Your task to perform on an android device: When is my next appointment? Image 0: 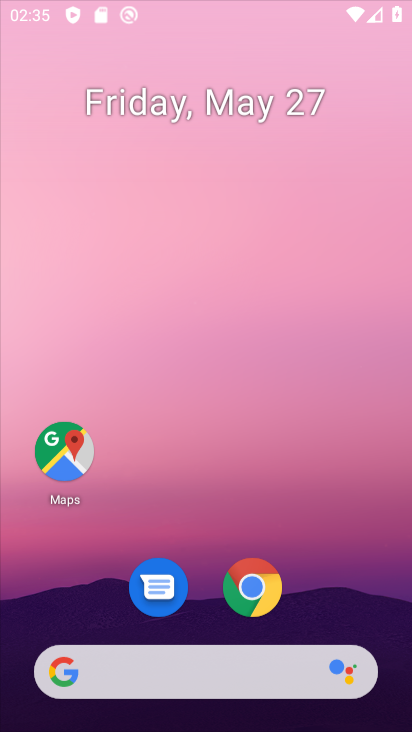
Step 0: press home button
Your task to perform on an android device: When is my next appointment? Image 1: 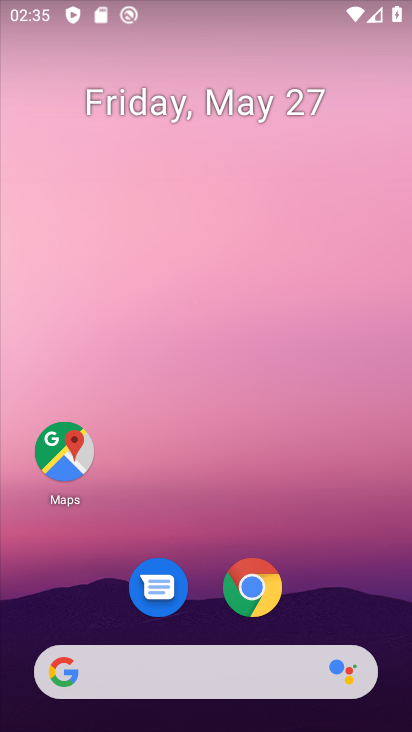
Step 1: click (298, 232)
Your task to perform on an android device: When is my next appointment? Image 2: 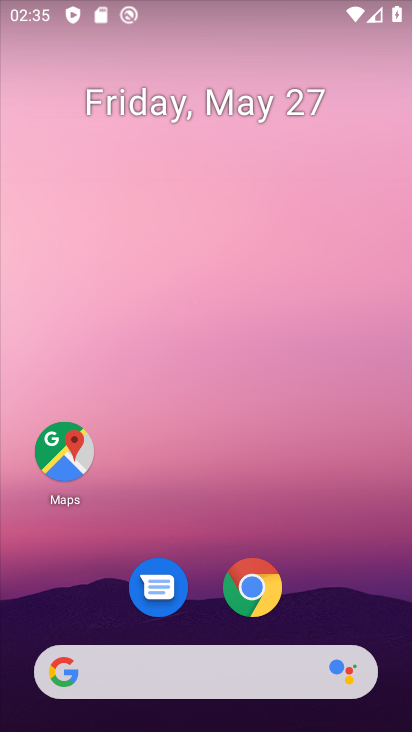
Step 2: drag from (336, 614) to (264, 177)
Your task to perform on an android device: When is my next appointment? Image 3: 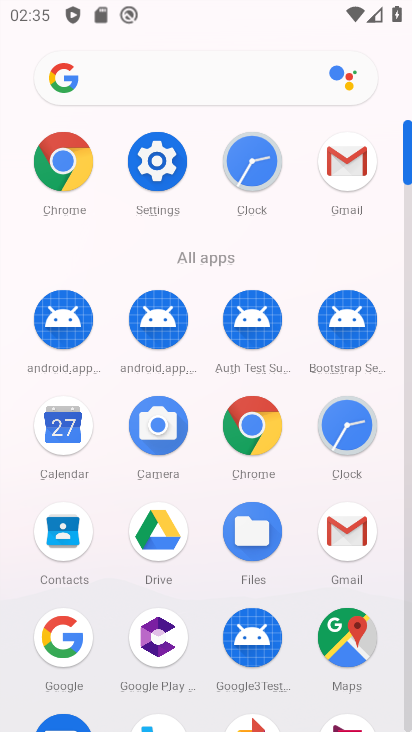
Step 3: click (66, 433)
Your task to perform on an android device: When is my next appointment? Image 4: 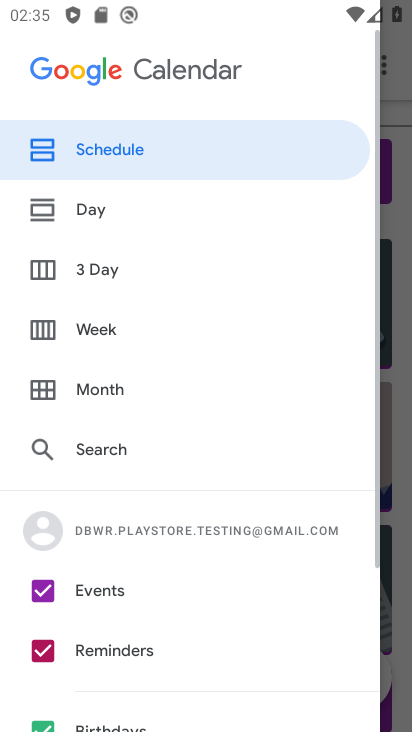
Step 4: click (134, 157)
Your task to perform on an android device: When is my next appointment? Image 5: 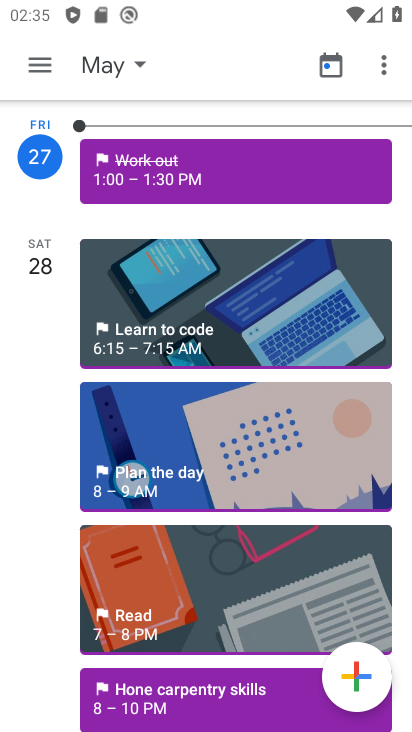
Step 5: task complete